Your task to perform on an android device: Open settings Image 0: 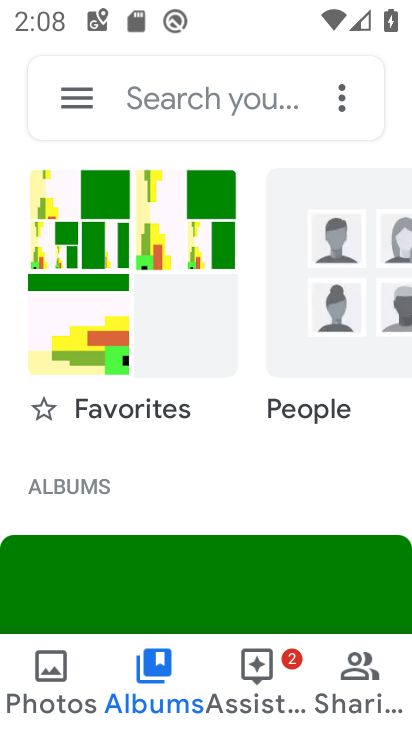
Step 0: press home button
Your task to perform on an android device: Open settings Image 1: 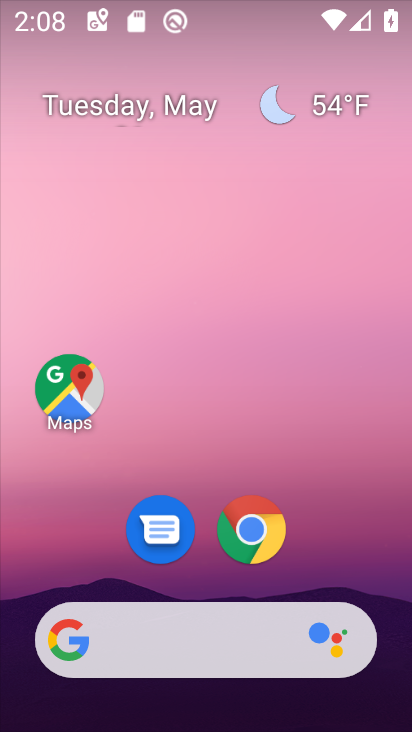
Step 1: drag from (287, 554) to (287, 297)
Your task to perform on an android device: Open settings Image 2: 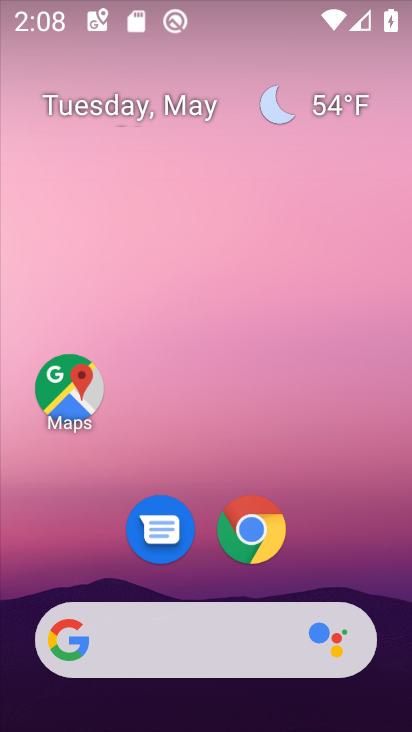
Step 2: drag from (240, 555) to (252, 146)
Your task to perform on an android device: Open settings Image 3: 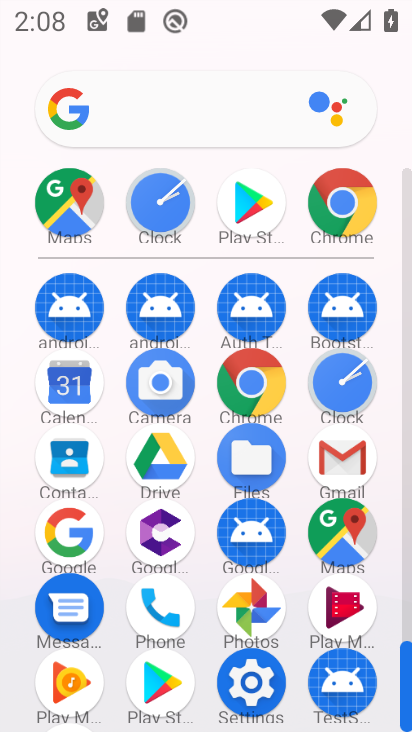
Step 3: click (238, 676)
Your task to perform on an android device: Open settings Image 4: 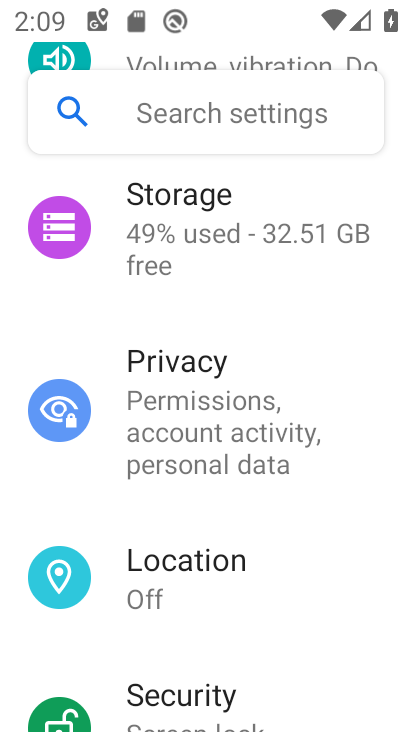
Step 4: task complete